Your task to perform on an android device: see sites visited before in the chrome app Image 0: 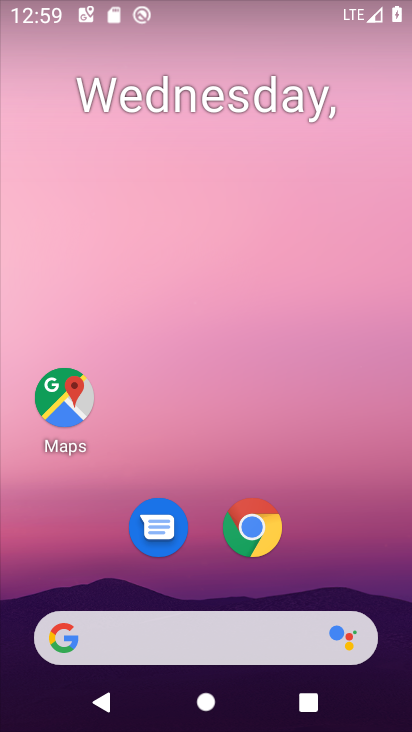
Step 0: drag from (295, 553) to (325, 10)
Your task to perform on an android device: see sites visited before in the chrome app Image 1: 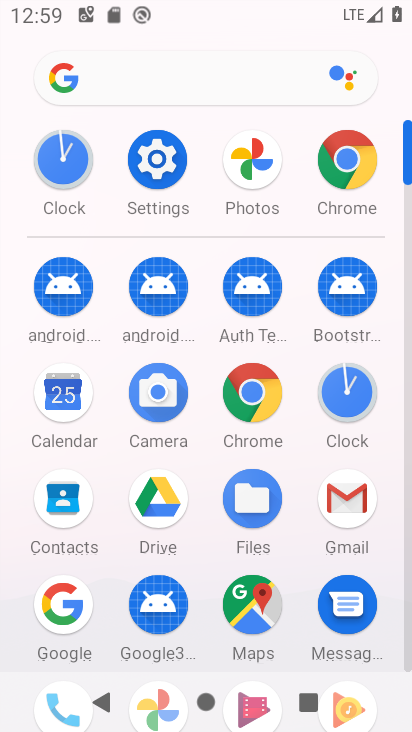
Step 1: click (248, 407)
Your task to perform on an android device: see sites visited before in the chrome app Image 2: 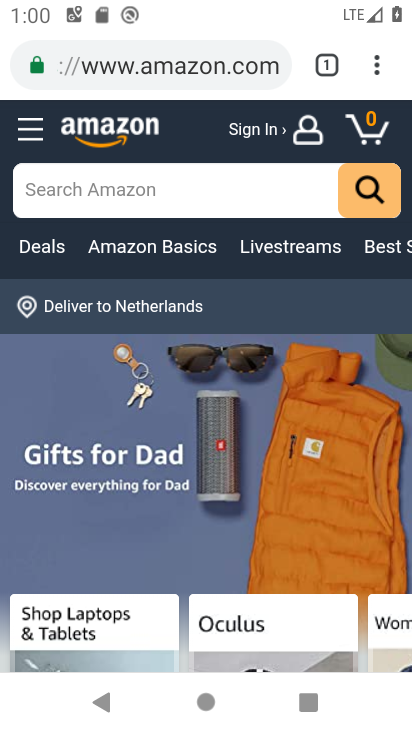
Step 2: click (369, 67)
Your task to perform on an android device: see sites visited before in the chrome app Image 3: 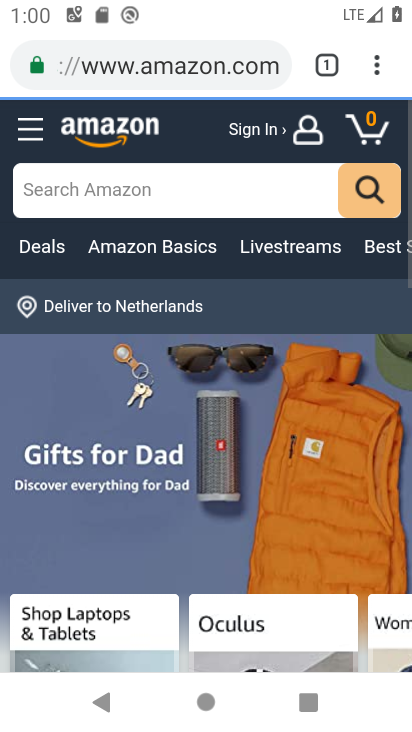
Step 3: task complete